Your task to perform on an android device: What is the news today? Image 0: 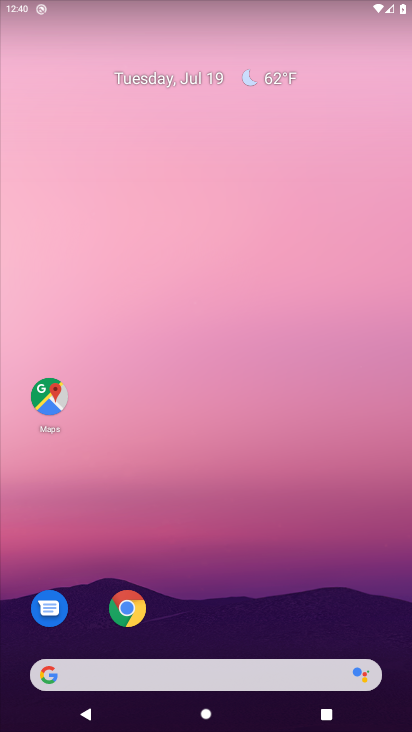
Step 0: press home button
Your task to perform on an android device: What is the news today? Image 1: 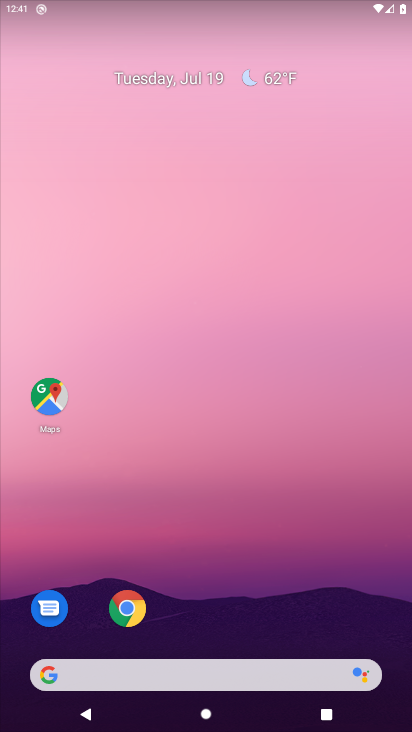
Step 1: task complete